Your task to perform on an android device: check storage Image 0: 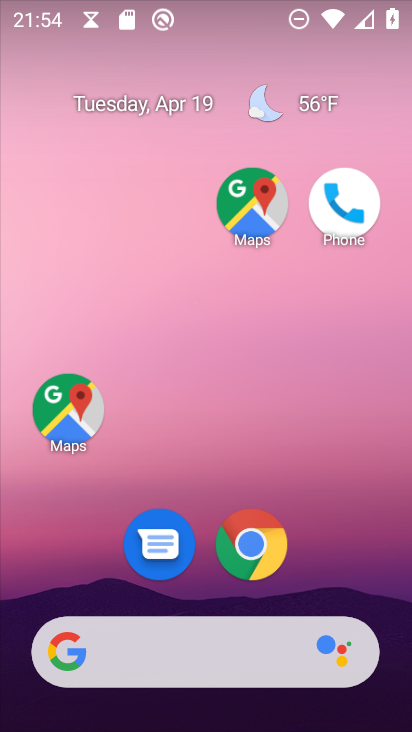
Step 0: drag from (204, 592) to (370, 23)
Your task to perform on an android device: check storage Image 1: 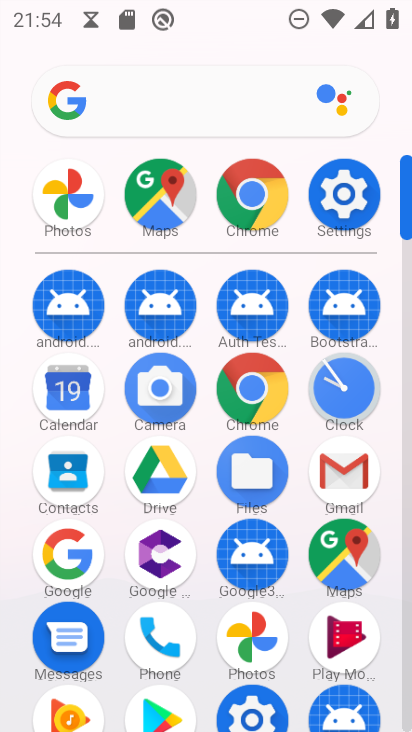
Step 1: click (333, 207)
Your task to perform on an android device: check storage Image 2: 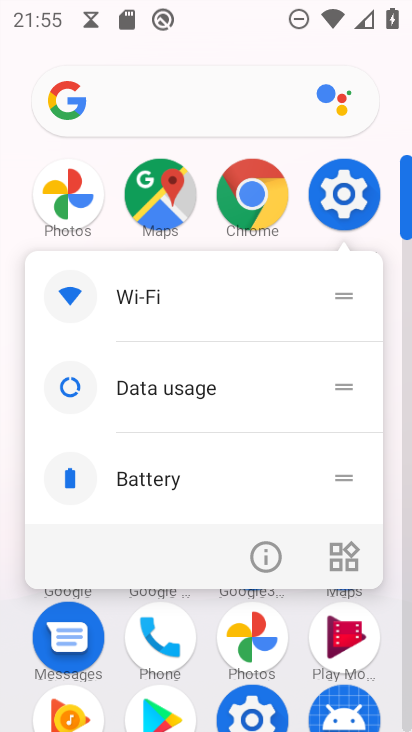
Step 2: click (340, 196)
Your task to perform on an android device: check storage Image 3: 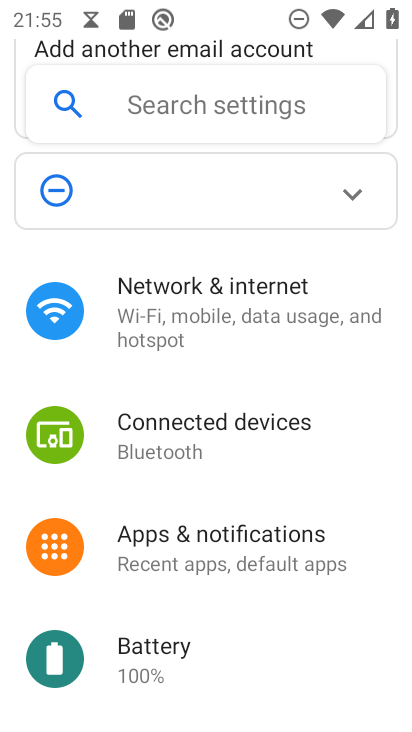
Step 3: drag from (230, 579) to (370, 62)
Your task to perform on an android device: check storage Image 4: 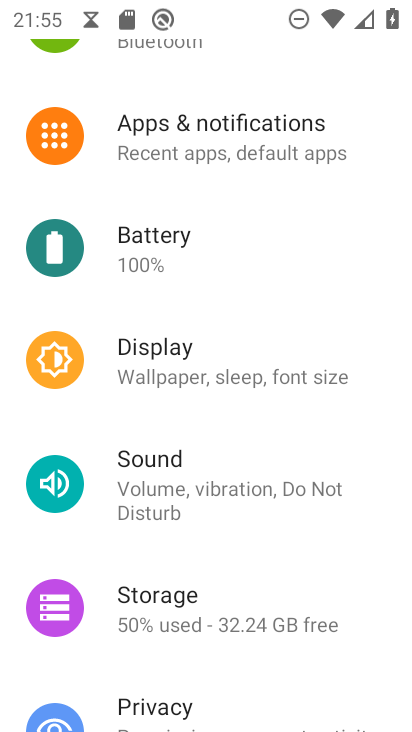
Step 4: click (200, 604)
Your task to perform on an android device: check storage Image 5: 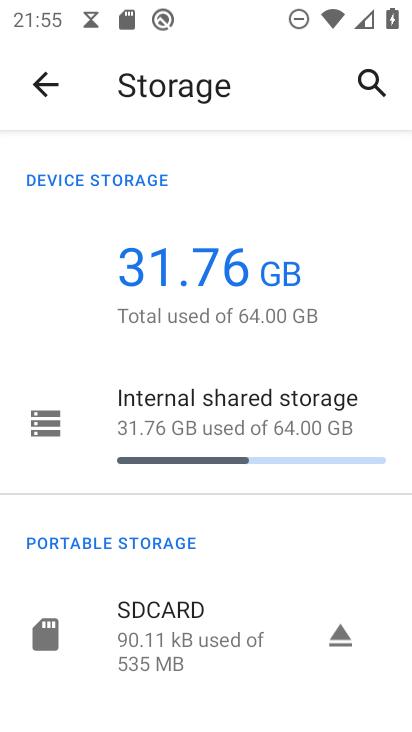
Step 5: task complete